Your task to perform on an android device: Go to eBay Image 0: 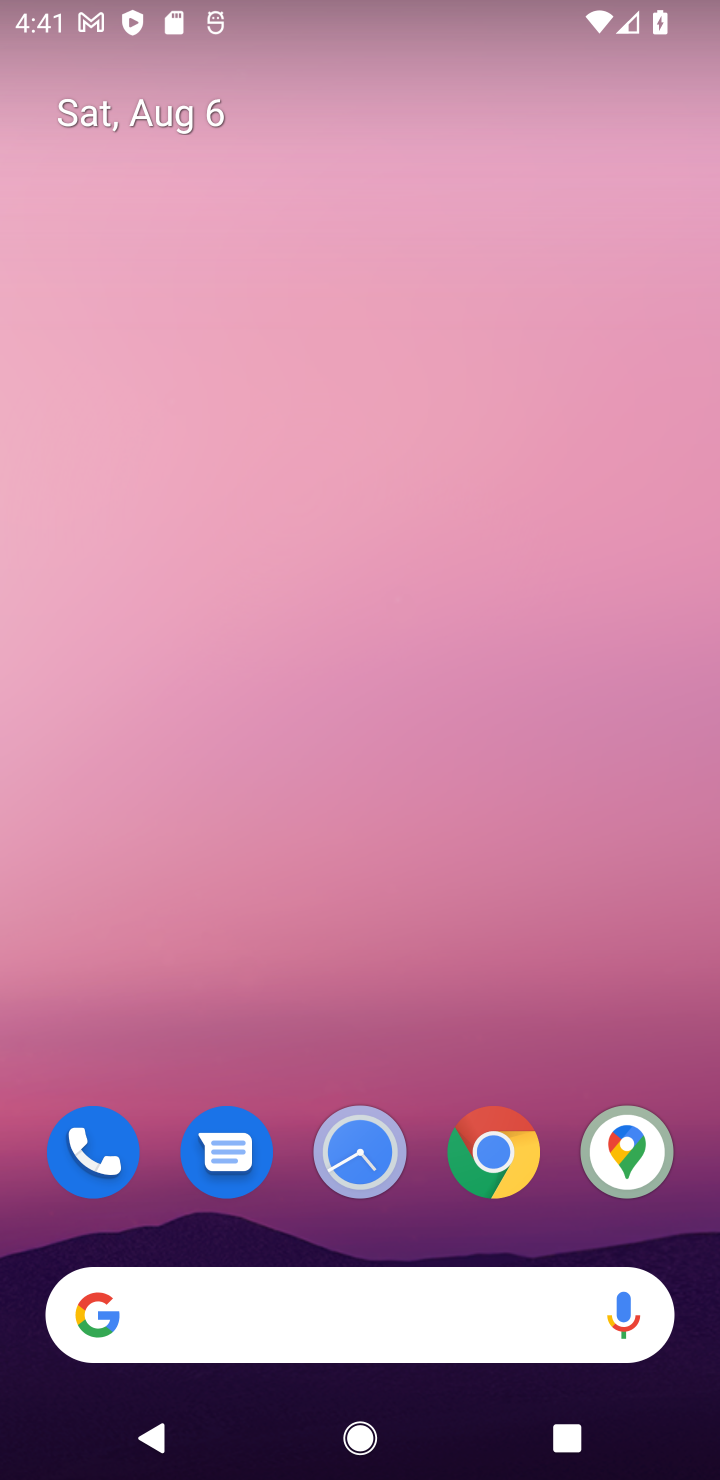
Step 0: press home button
Your task to perform on an android device: Go to eBay Image 1: 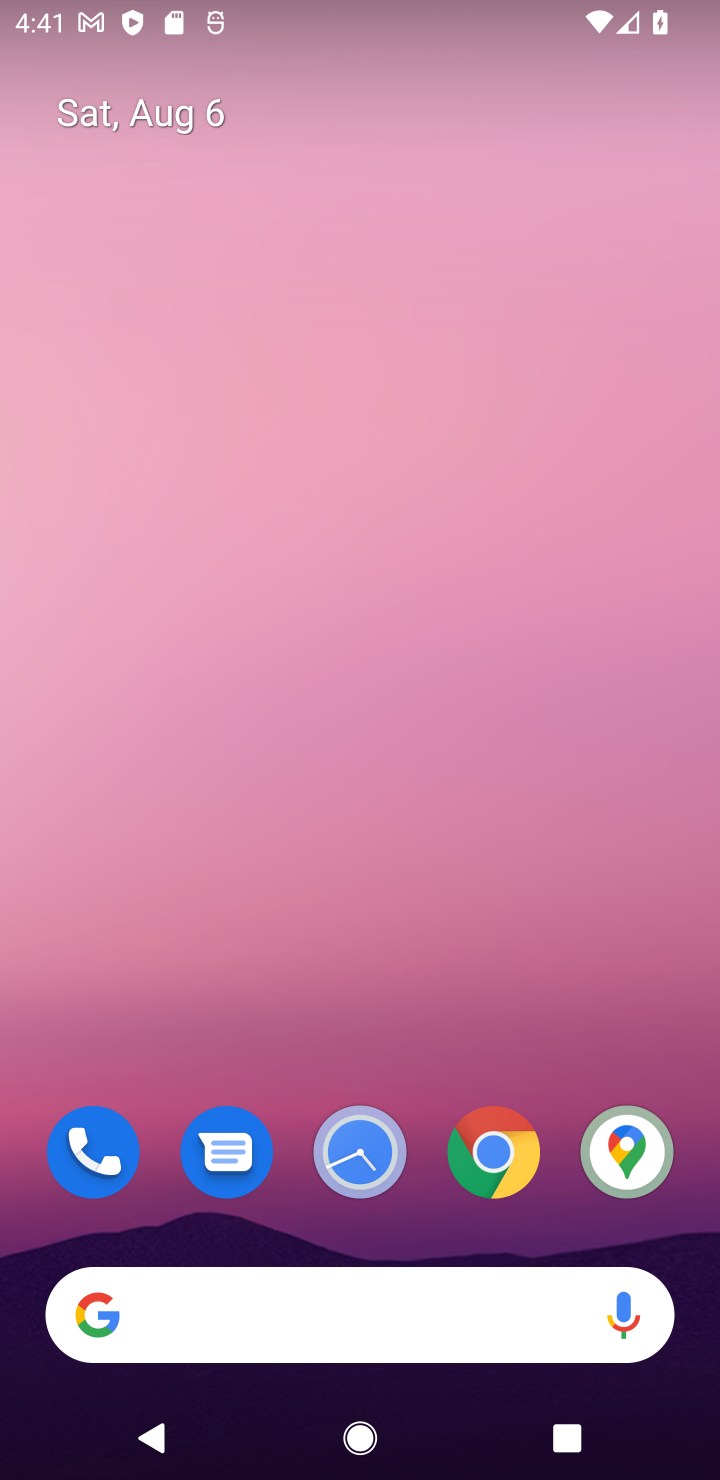
Step 1: drag from (571, 1058) to (521, 235)
Your task to perform on an android device: Go to eBay Image 2: 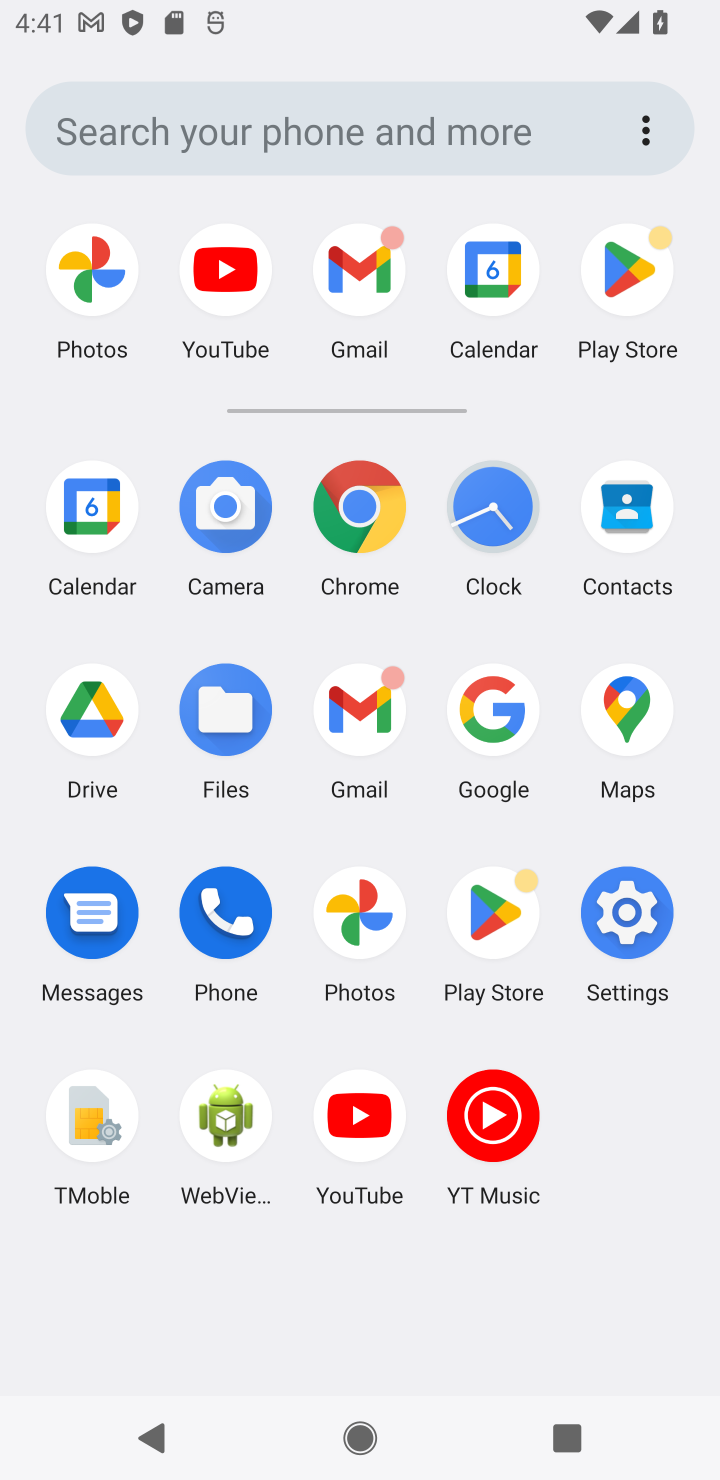
Step 2: click (358, 506)
Your task to perform on an android device: Go to eBay Image 3: 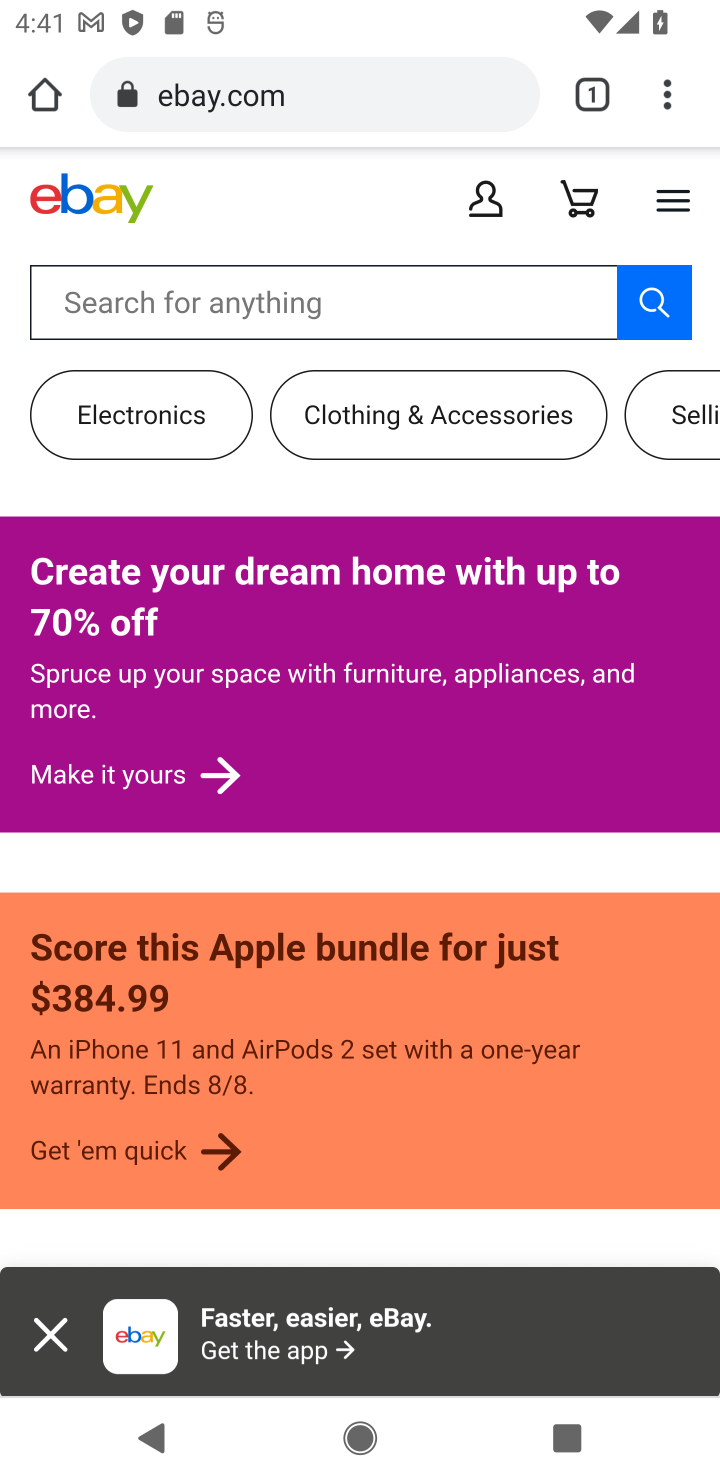
Step 3: task complete